Your task to perform on an android device: turn pop-ups off in chrome Image 0: 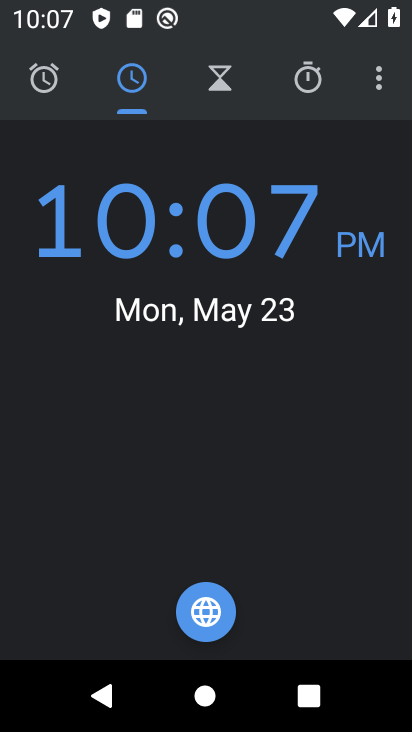
Step 0: press home button
Your task to perform on an android device: turn pop-ups off in chrome Image 1: 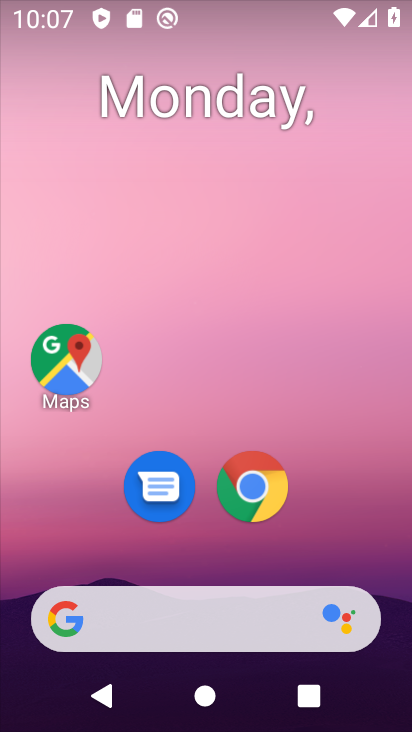
Step 1: click (253, 484)
Your task to perform on an android device: turn pop-ups off in chrome Image 2: 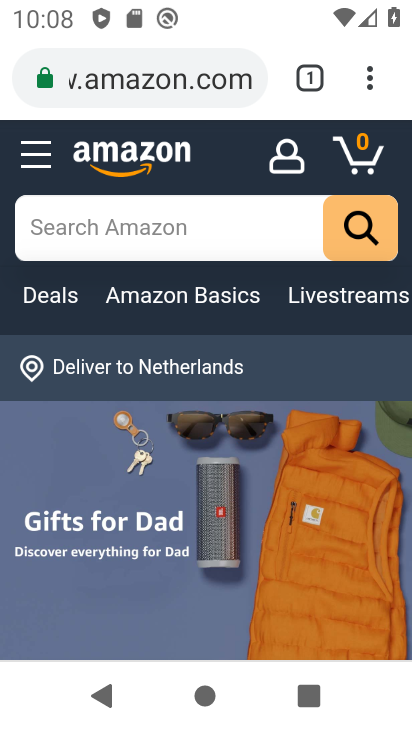
Step 2: click (372, 78)
Your task to perform on an android device: turn pop-ups off in chrome Image 3: 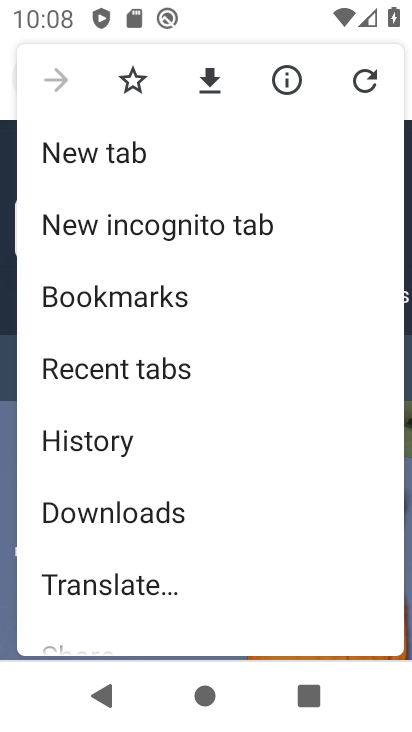
Step 3: drag from (191, 558) to (251, 423)
Your task to perform on an android device: turn pop-ups off in chrome Image 4: 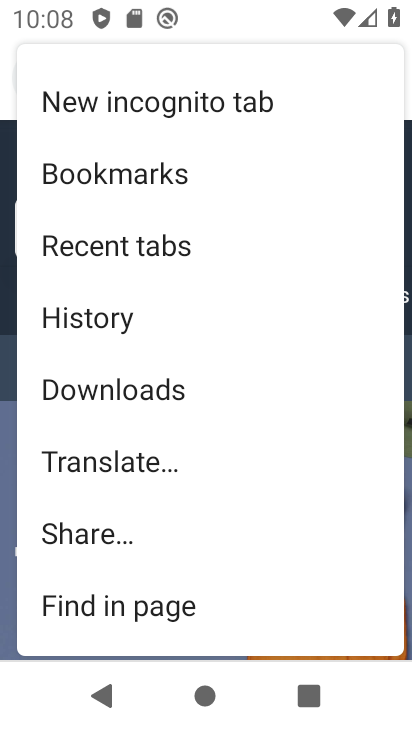
Step 4: drag from (159, 556) to (214, 454)
Your task to perform on an android device: turn pop-ups off in chrome Image 5: 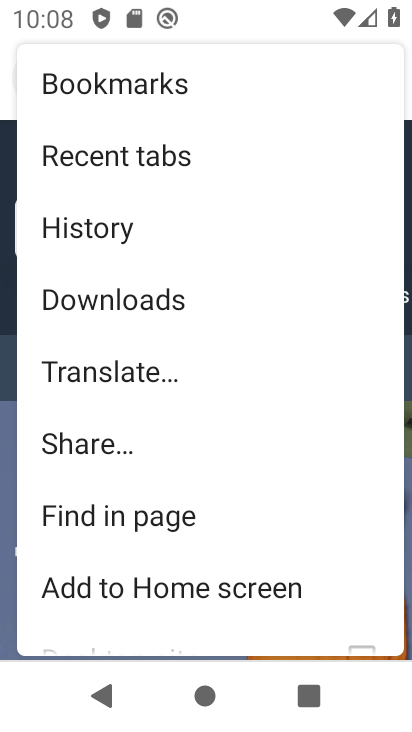
Step 5: drag from (132, 550) to (182, 426)
Your task to perform on an android device: turn pop-ups off in chrome Image 6: 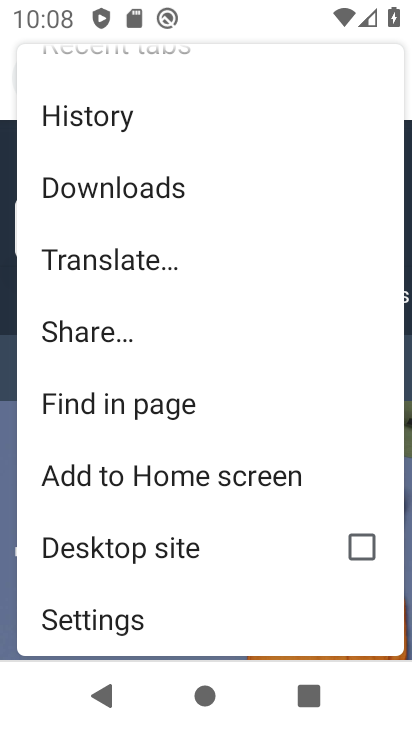
Step 6: drag from (147, 587) to (249, 429)
Your task to perform on an android device: turn pop-ups off in chrome Image 7: 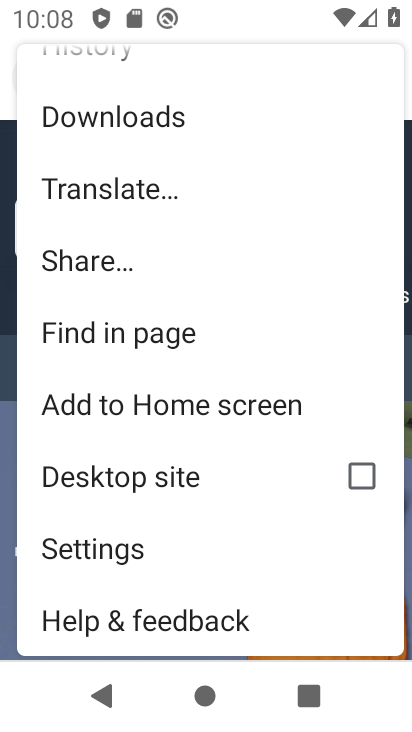
Step 7: click (101, 555)
Your task to perform on an android device: turn pop-ups off in chrome Image 8: 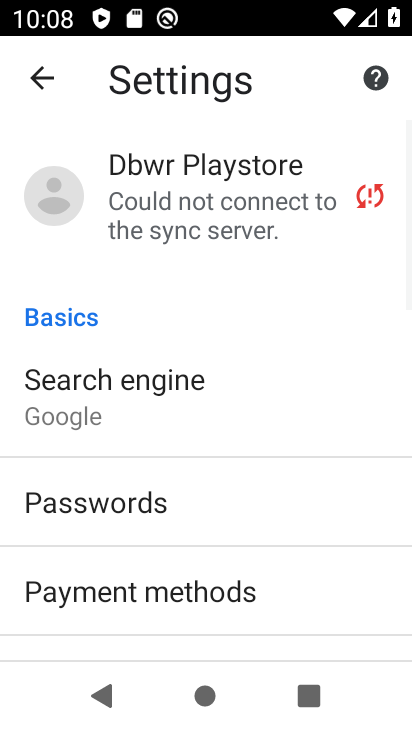
Step 8: drag from (206, 478) to (236, 414)
Your task to perform on an android device: turn pop-ups off in chrome Image 9: 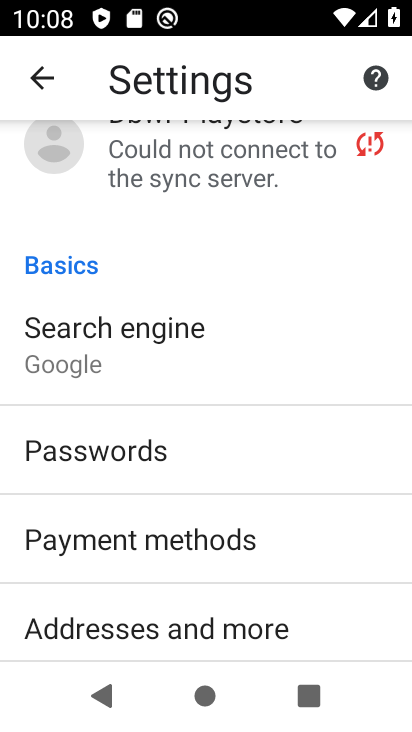
Step 9: drag from (151, 585) to (229, 456)
Your task to perform on an android device: turn pop-ups off in chrome Image 10: 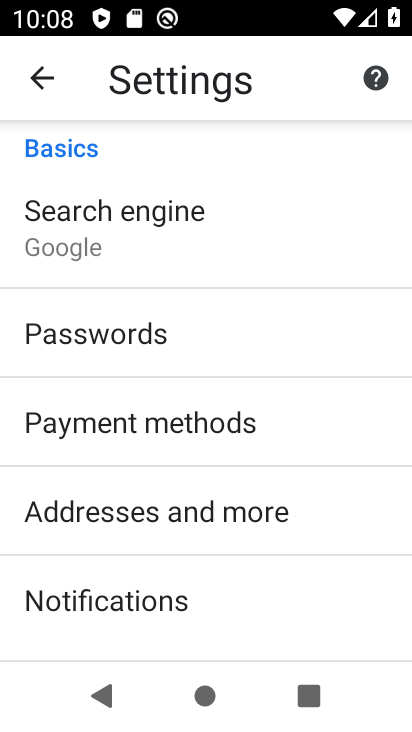
Step 10: drag from (159, 579) to (247, 452)
Your task to perform on an android device: turn pop-ups off in chrome Image 11: 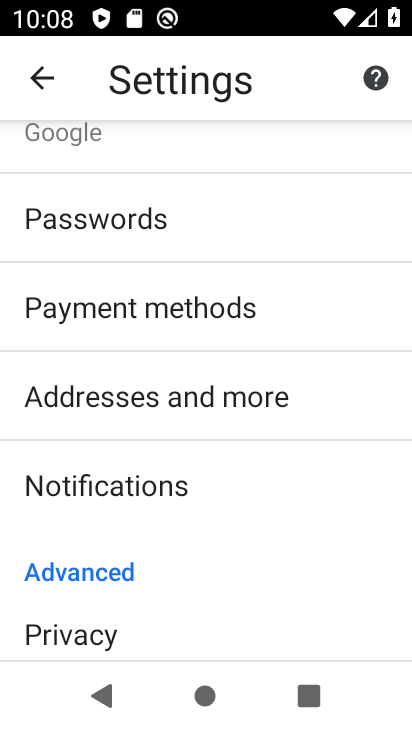
Step 11: drag from (172, 586) to (243, 443)
Your task to perform on an android device: turn pop-ups off in chrome Image 12: 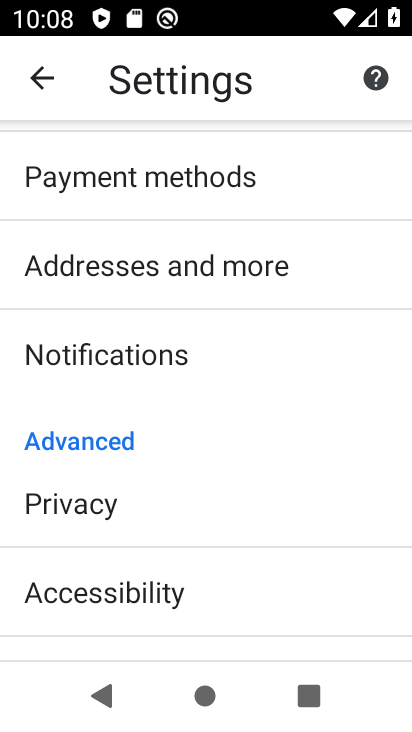
Step 12: drag from (152, 564) to (229, 460)
Your task to perform on an android device: turn pop-ups off in chrome Image 13: 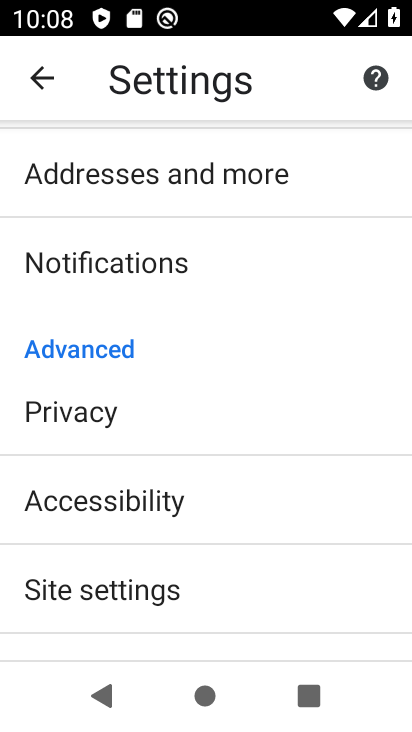
Step 13: drag from (127, 549) to (198, 455)
Your task to perform on an android device: turn pop-ups off in chrome Image 14: 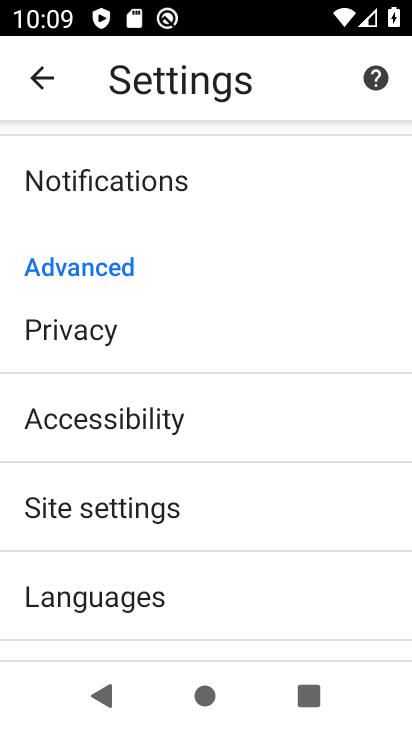
Step 14: click (123, 503)
Your task to perform on an android device: turn pop-ups off in chrome Image 15: 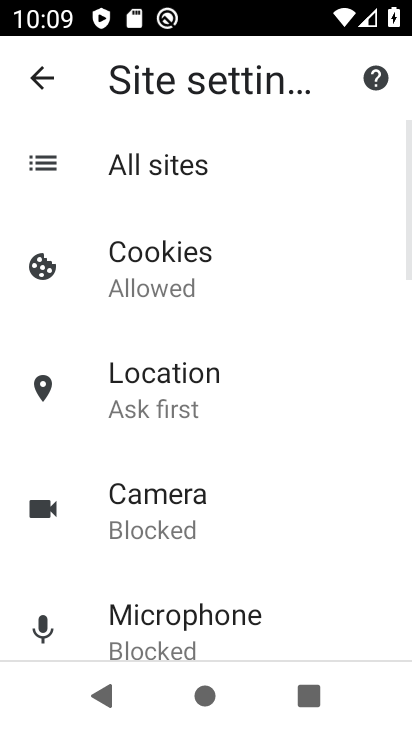
Step 15: drag from (148, 568) to (175, 423)
Your task to perform on an android device: turn pop-ups off in chrome Image 16: 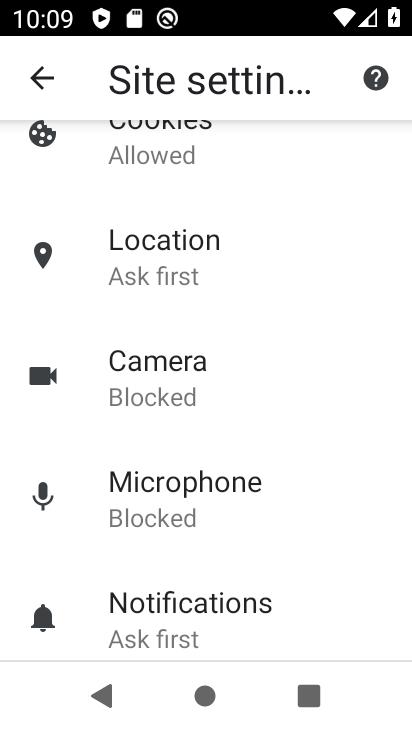
Step 16: drag from (161, 549) to (202, 442)
Your task to perform on an android device: turn pop-ups off in chrome Image 17: 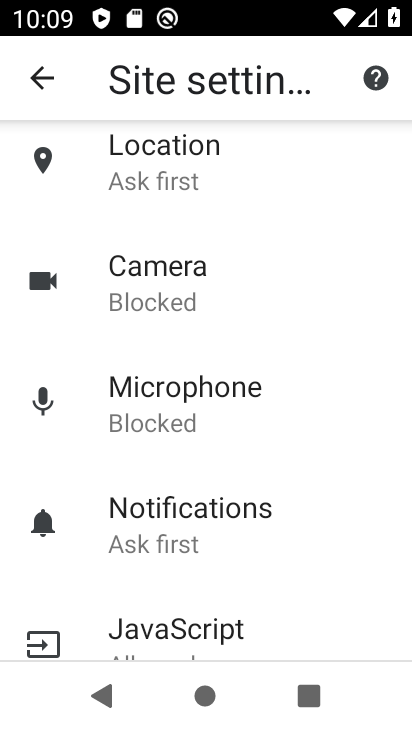
Step 17: drag from (158, 576) to (231, 451)
Your task to perform on an android device: turn pop-ups off in chrome Image 18: 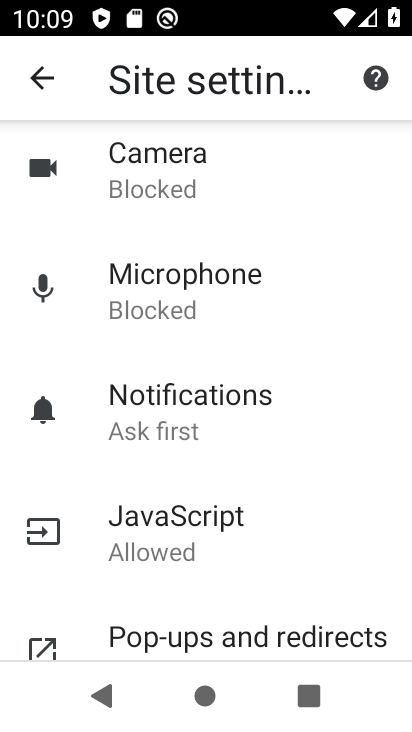
Step 18: drag from (155, 593) to (218, 449)
Your task to perform on an android device: turn pop-ups off in chrome Image 19: 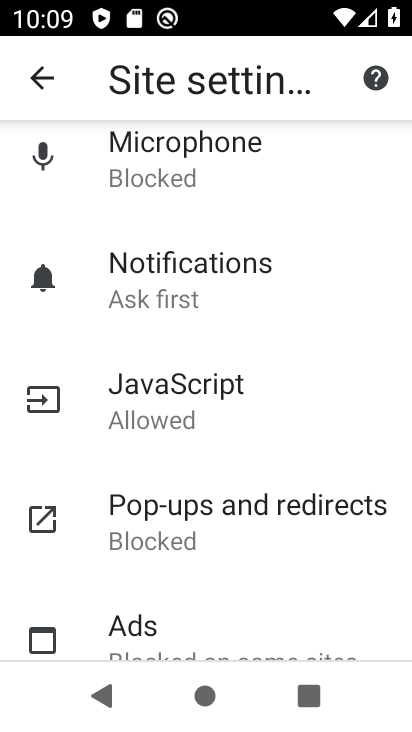
Step 19: click (227, 503)
Your task to perform on an android device: turn pop-ups off in chrome Image 20: 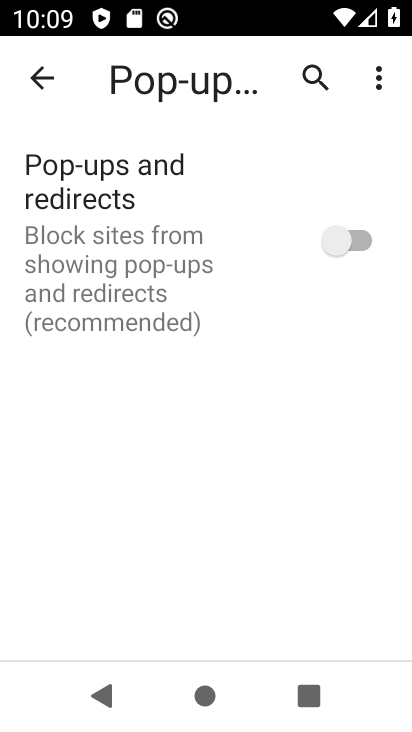
Step 20: task complete